Your task to perform on an android device: Open display settings Image 0: 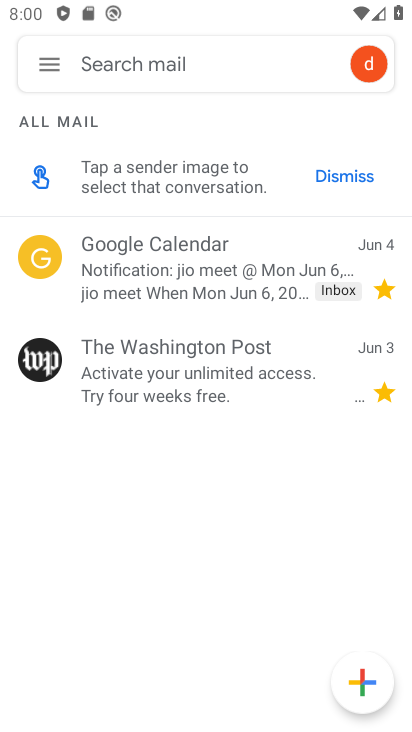
Step 0: press home button
Your task to perform on an android device: Open display settings Image 1: 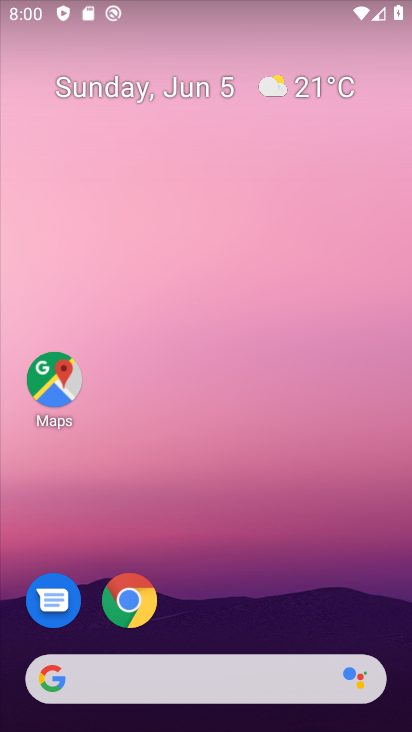
Step 1: drag from (242, 634) to (237, 39)
Your task to perform on an android device: Open display settings Image 2: 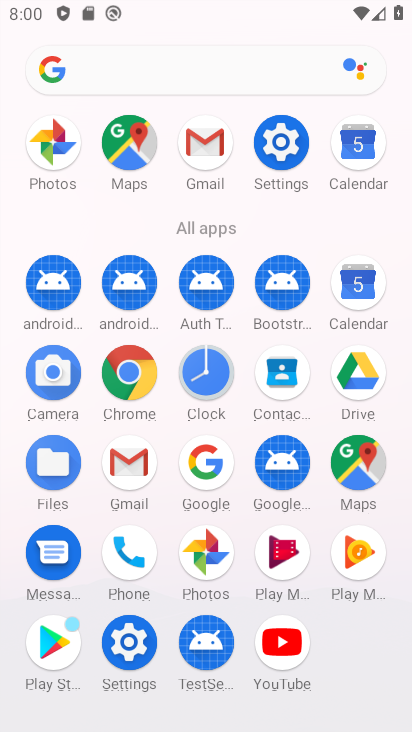
Step 2: click (139, 639)
Your task to perform on an android device: Open display settings Image 3: 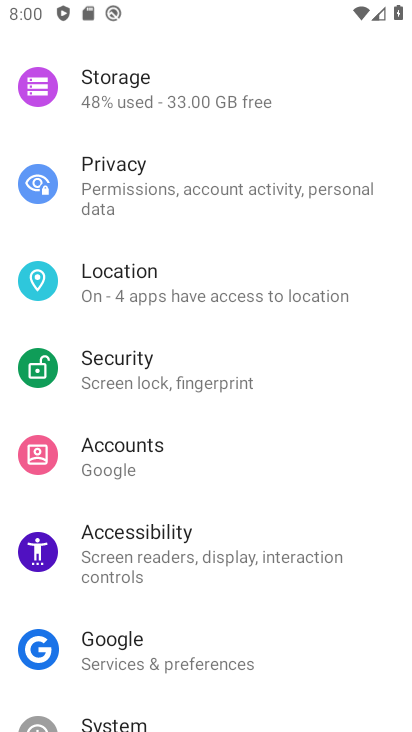
Step 3: drag from (236, 293) to (291, 720)
Your task to perform on an android device: Open display settings Image 4: 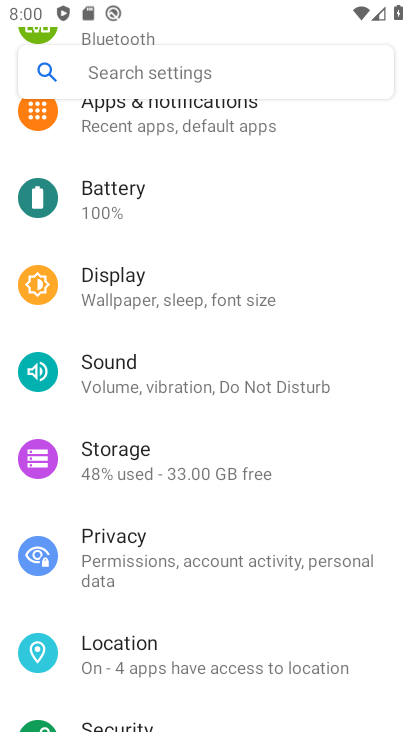
Step 4: click (115, 301)
Your task to perform on an android device: Open display settings Image 5: 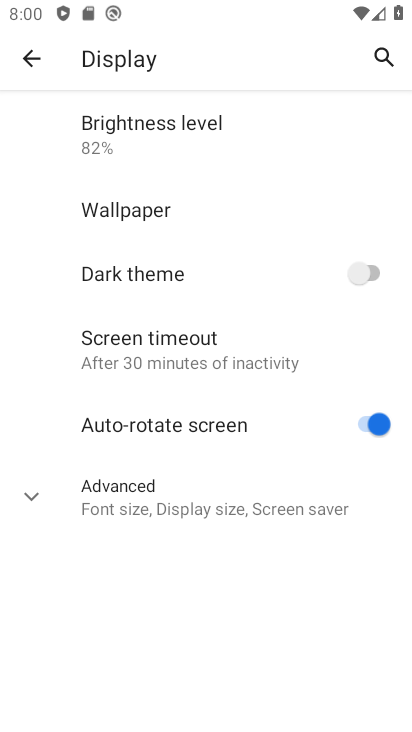
Step 5: task complete